Your task to perform on an android device: Search for sushi restaurants on Maps Image 0: 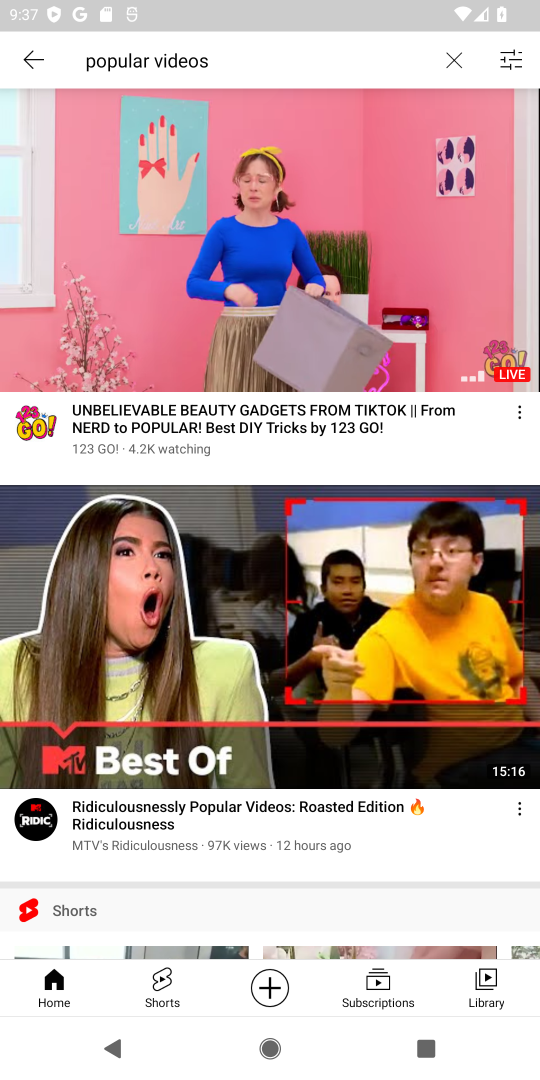
Step 0: press home button
Your task to perform on an android device: Search for sushi restaurants on Maps Image 1: 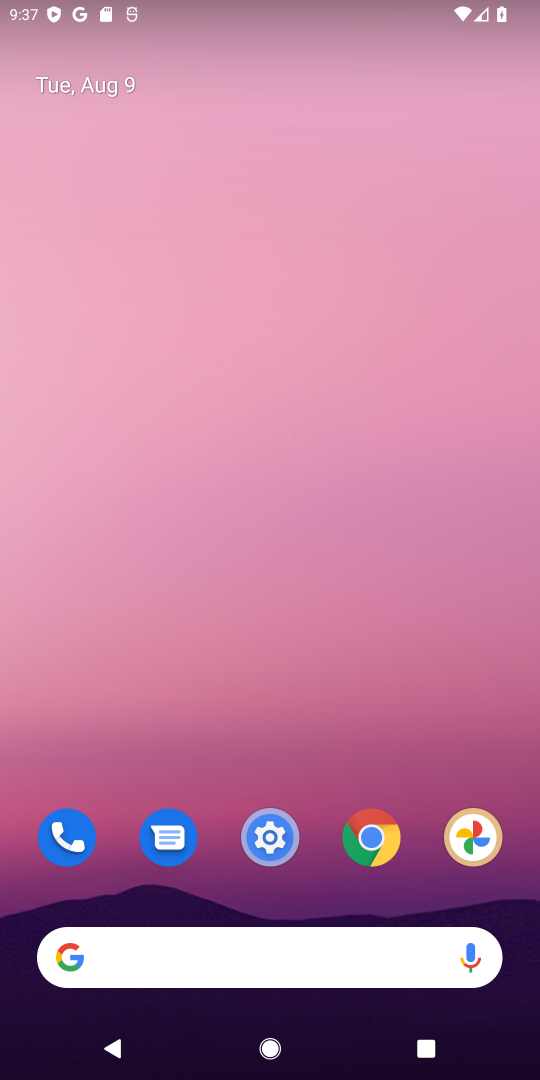
Step 1: drag from (312, 632) to (312, 229)
Your task to perform on an android device: Search for sushi restaurants on Maps Image 2: 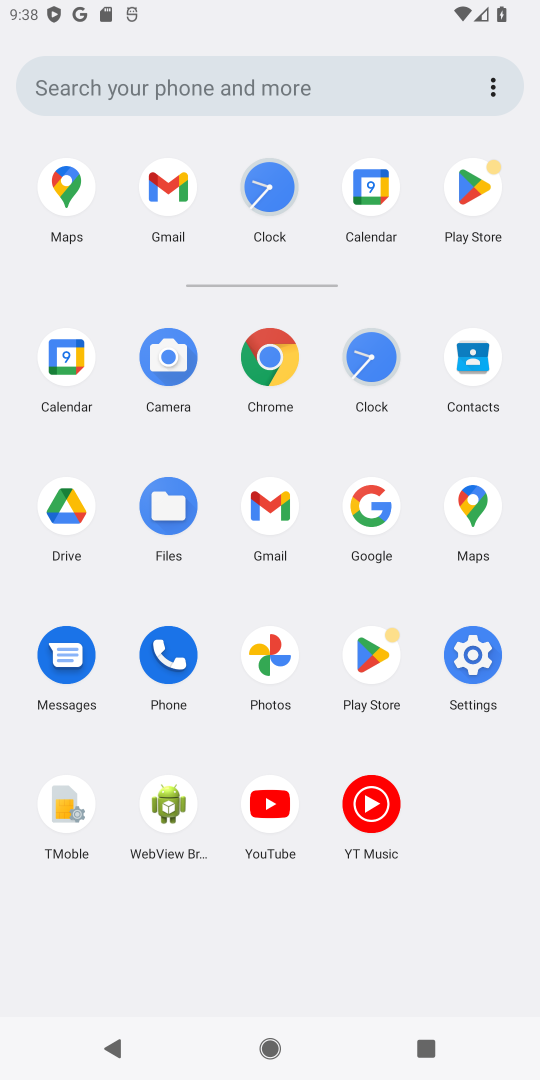
Step 2: click (480, 506)
Your task to perform on an android device: Search for sushi restaurants on Maps Image 3: 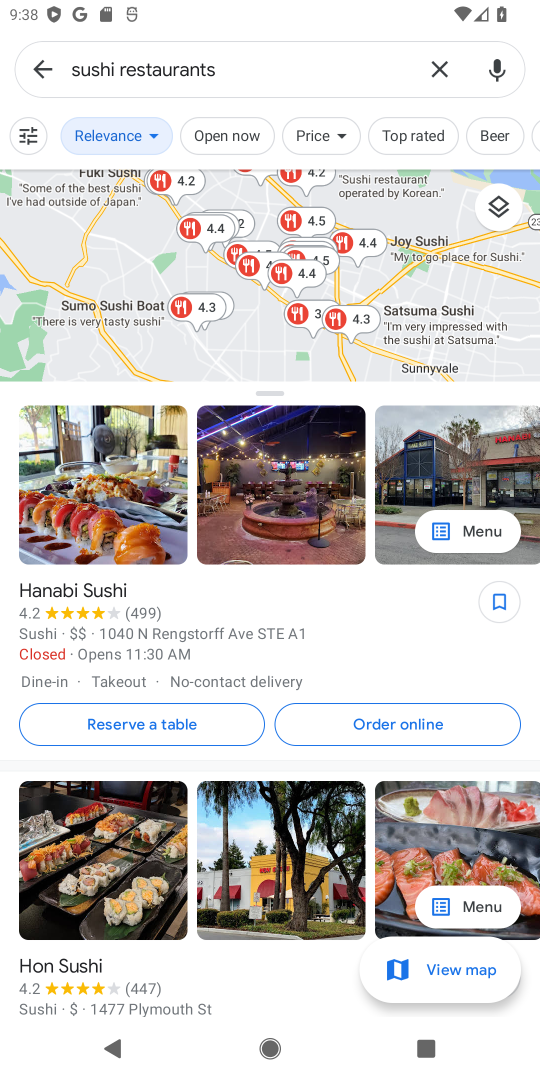
Step 3: task complete